Your task to perform on an android device: uninstall "Mercado Libre" Image 0: 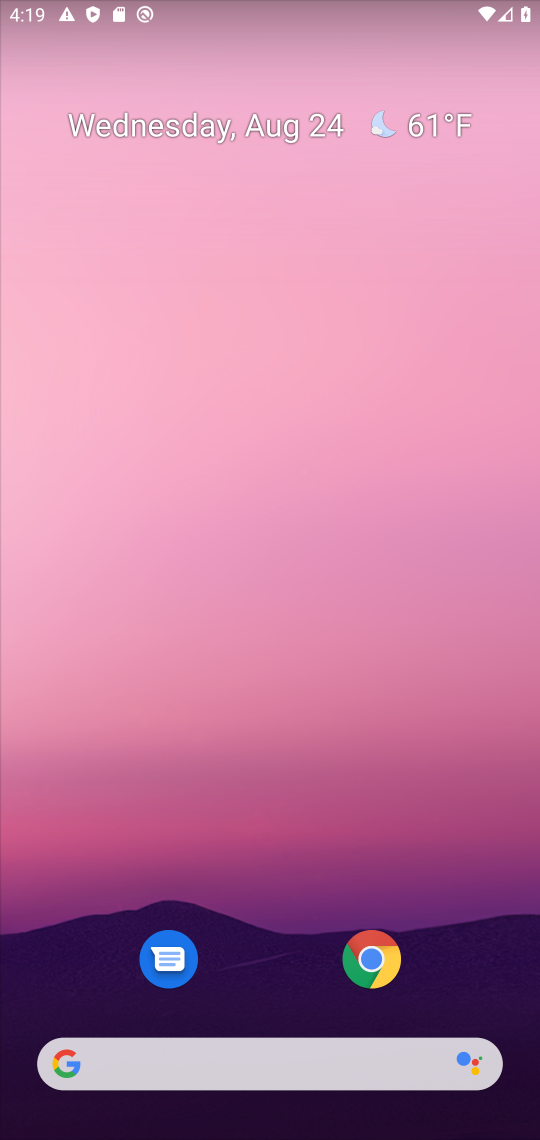
Step 0: drag from (312, 1002) to (312, 86)
Your task to perform on an android device: uninstall "Mercado Libre" Image 1: 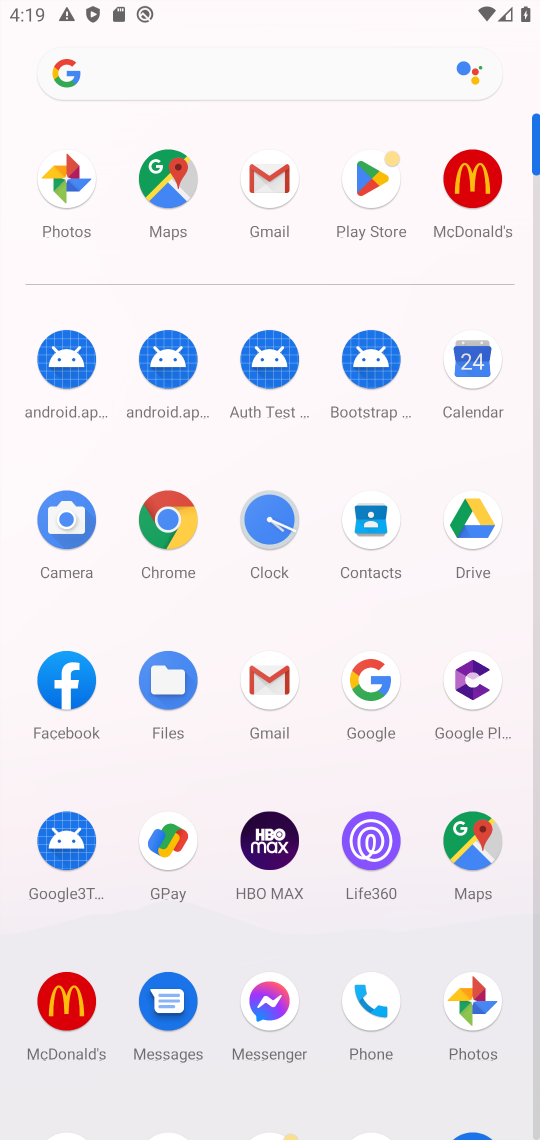
Step 1: task complete